Your task to perform on an android device: turn off wifi Image 0: 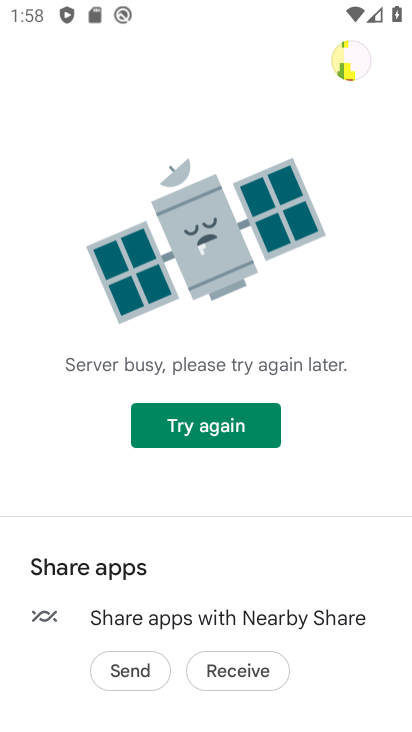
Step 0: press home button
Your task to perform on an android device: turn off wifi Image 1: 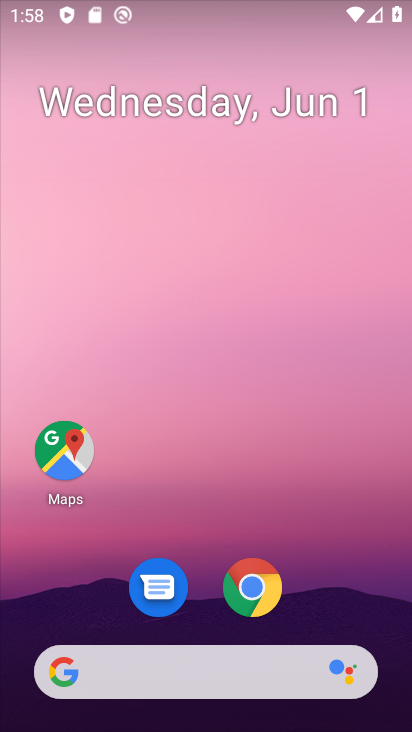
Step 1: drag from (171, 668) to (170, 71)
Your task to perform on an android device: turn off wifi Image 2: 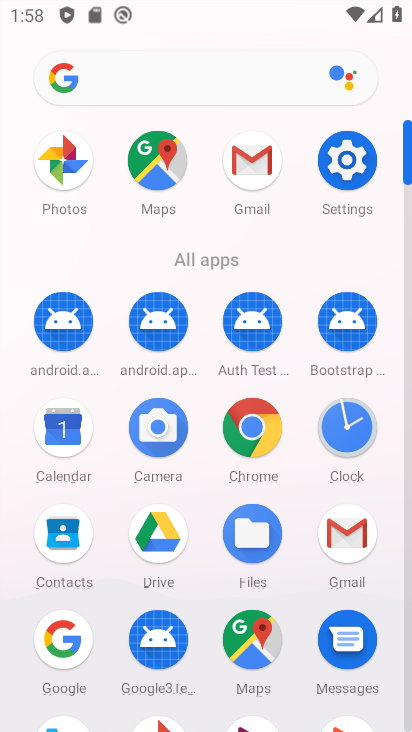
Step 2: click (322, 160)
Your task to perform on an android device: turn off wifi Image 3: 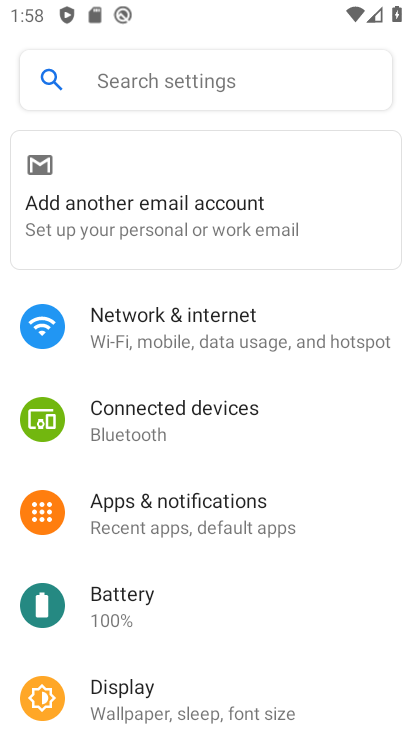
Step 3: click (160, 315)
Your task to perform on an android device: turn off wifi Image 4: 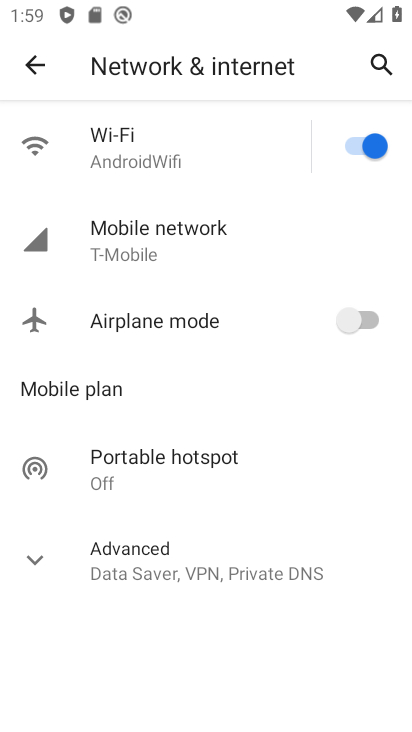
Step 4: click (369, 146)
Your task to perform on an android device: turn off wifi Image 5: 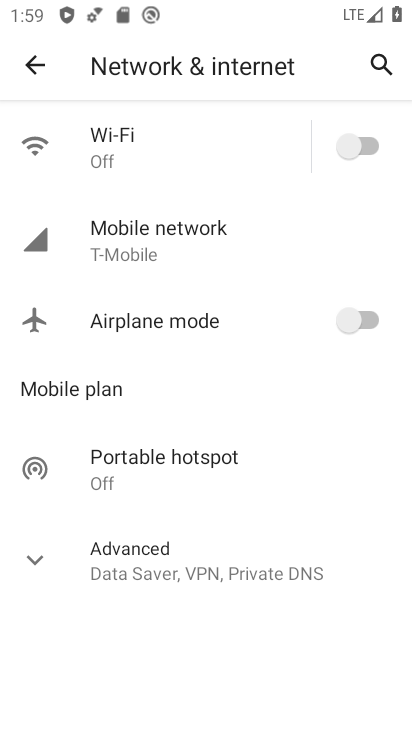
Step 5: task complete